Your task to perform on an android device: Show me productivity apps on the Play Store Image 0: 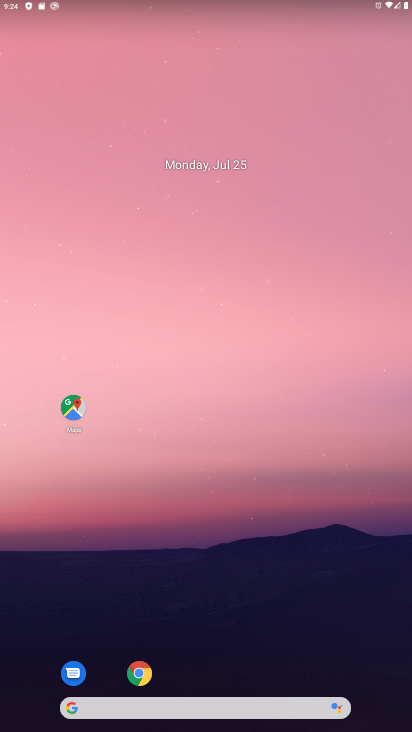
Step 0: drag from (183, 691) to (203, 233)
Your task to perform on an android device: Show me productivity apps on the Play Store Image 1: 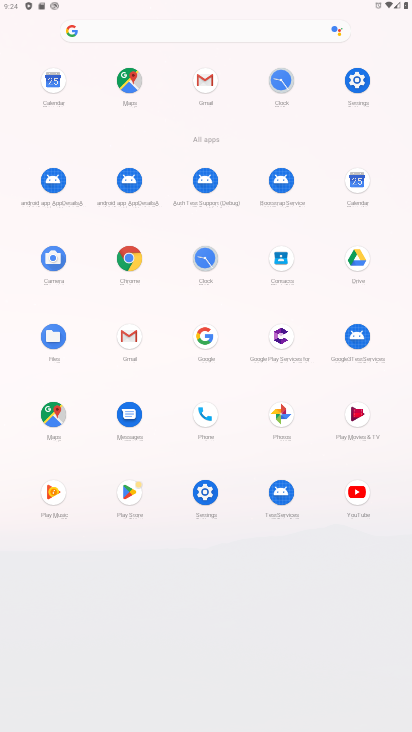
Step 1: click (132, 489)
Your task to perform on an android device: Show me productivity apps on the Play Store Image 2: 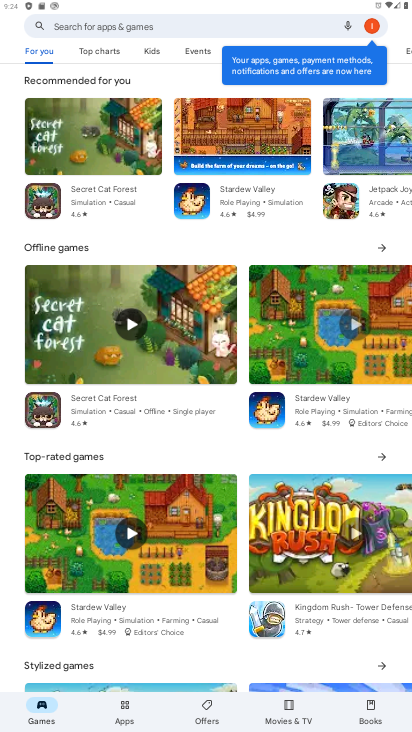
Step 2: click (115, 700)
Your task to perform on an android device: Show me productivity apps on the Play Store Image 3: 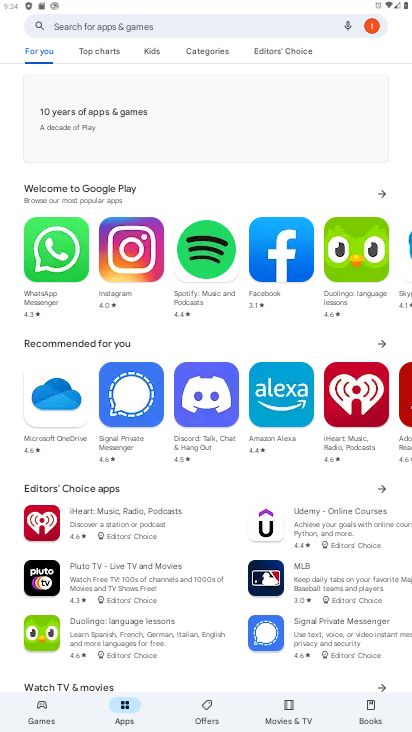
Step 3: click (206, 57)
Your task to perform on an android device: Show me productivity apps on the Play Store Image 4: 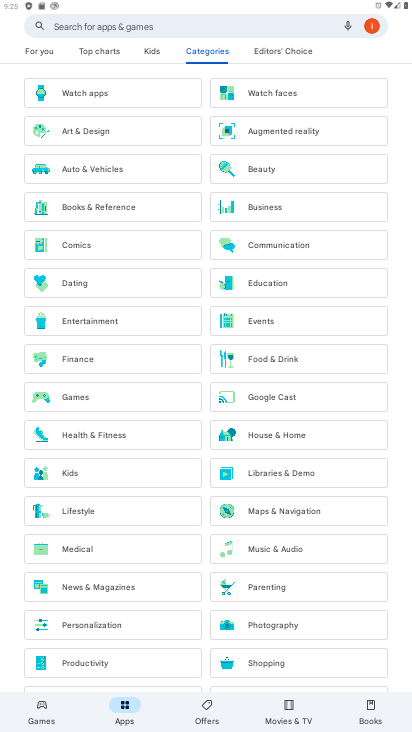
Step 4: click (94, 662)
Your task to perform on an android device: Show me productivity apps on the Play Store Image 5: 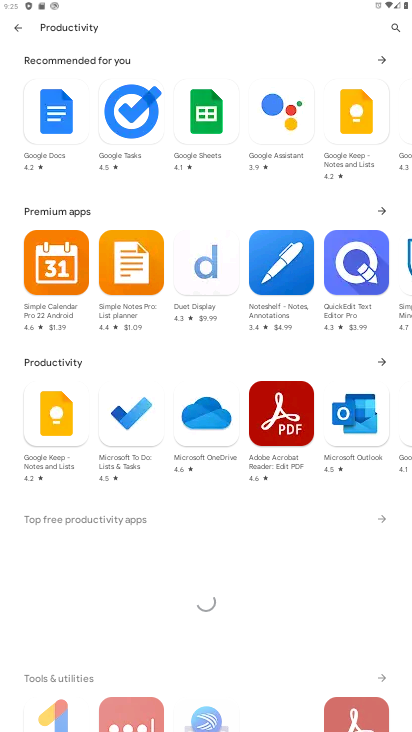
Step 5: task complete